Your task to perform on an android device: change the clock display to digital Image 0: 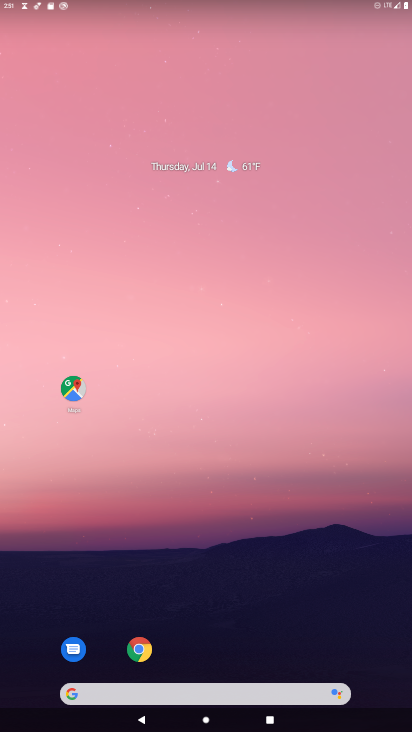
Step 0: drag from (305, 645) to (282, 50)
Your task to perform on an android device: change the clock display to digital Image 1: 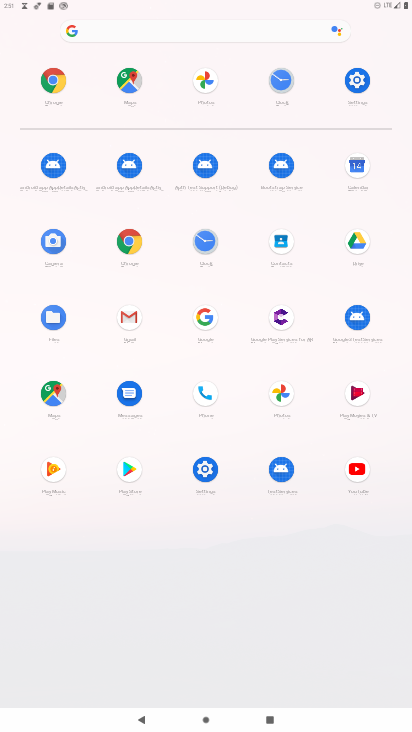
Step 1: click (204, 235)
Your task to perform on an android device: change the clock display to digital Image 2: 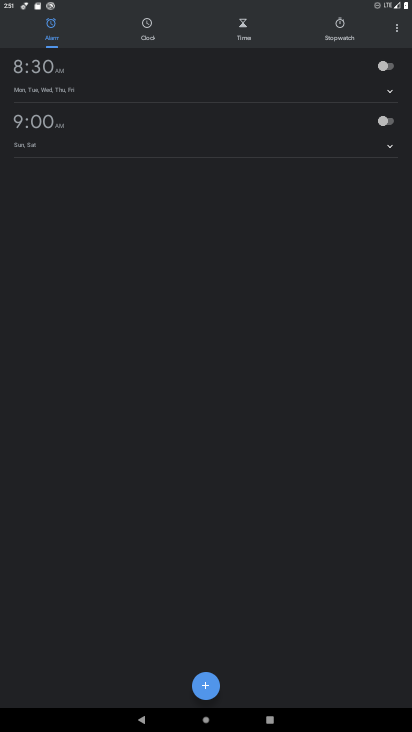
Step 2: click (393, 25)
Your task to perform on an android device: change the clock display to digital Image 3: 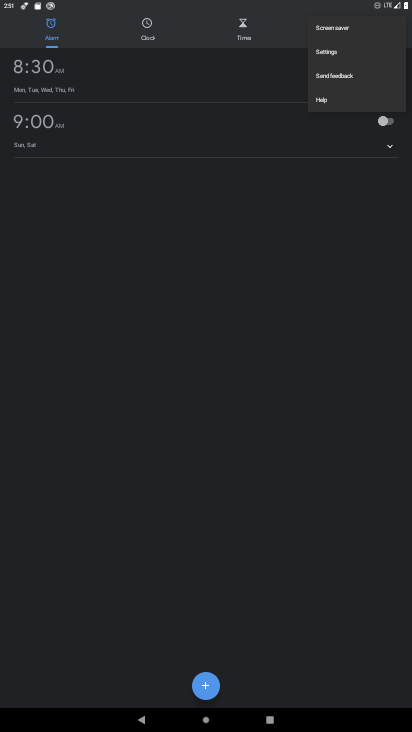
Step 3: click (337, 52)
Your task to perform on an android device: change the clock display to digital Image 4: 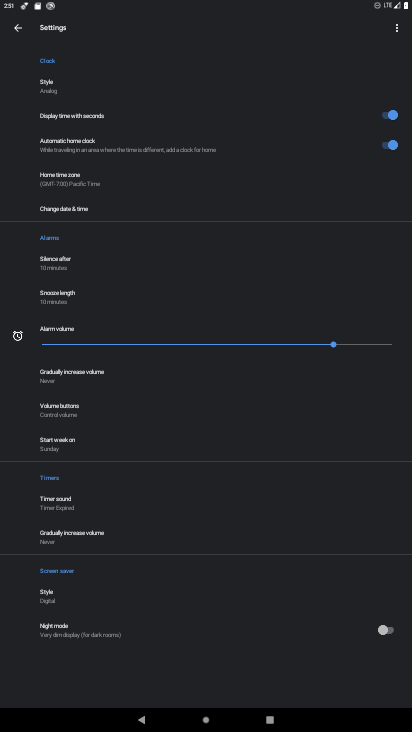
Step 4: task complete